Your task to perform on an android device: Open Google Maps Image 0: 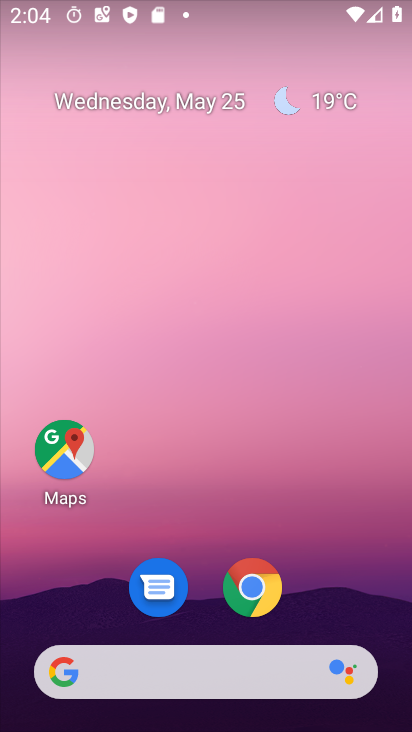
Step 0: click (61, 444)
Your task to perform on an android device: Open Google Maps Image 1: 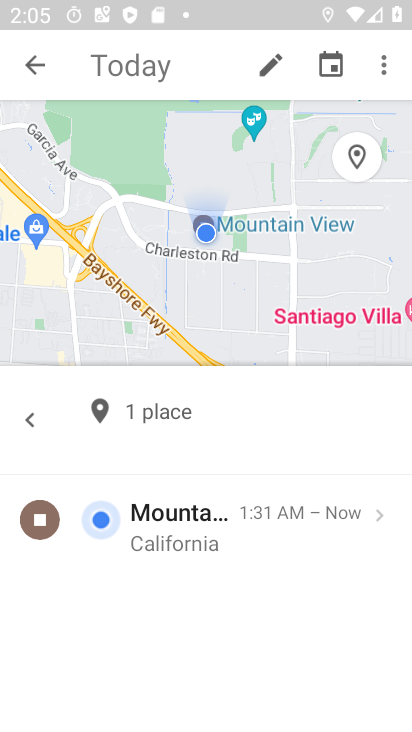
Step 1: task complete